Your task to perform on an android device: Open calendar and show me the fourth week of next month Image 0: 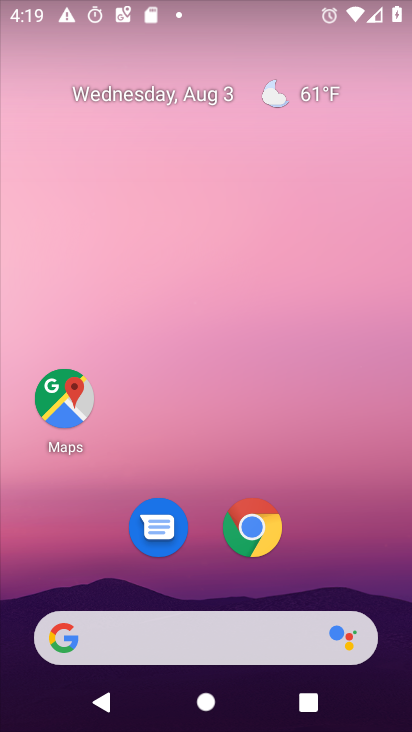
Step 0: click (326, 81)
Your task to perform on an android device: Open calendar and show me the fourth week of next month Image 1: 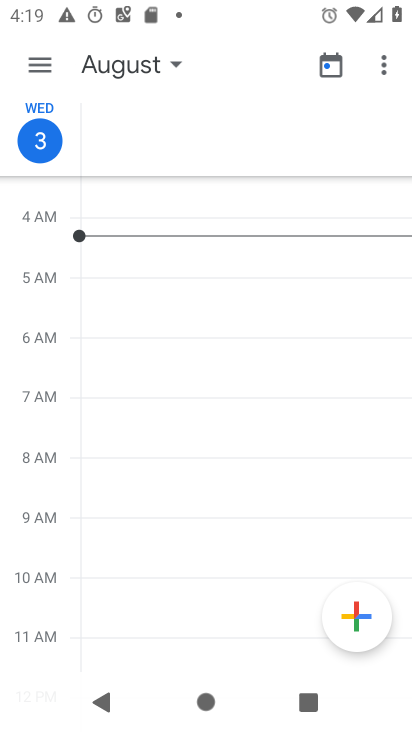
Step 1: press home button
Your task to perform on an android device: Open calendar and show me the fourth week of next month Image 2: 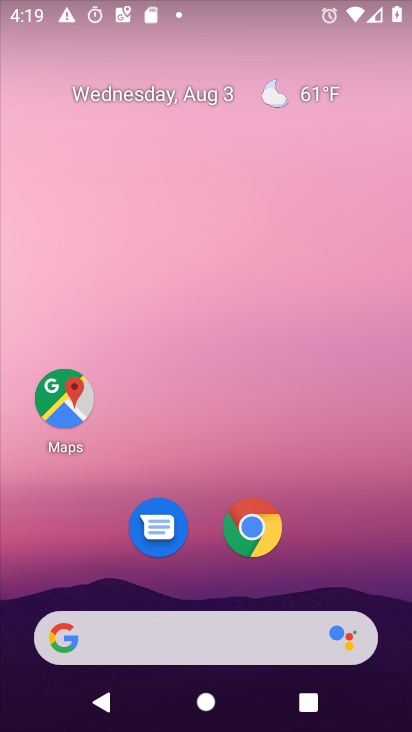
Step 2: drag from (362, 541) to (328, 140)
Your task to perform on an android device: Open calendar and show me the fourth week of next month Image 3: 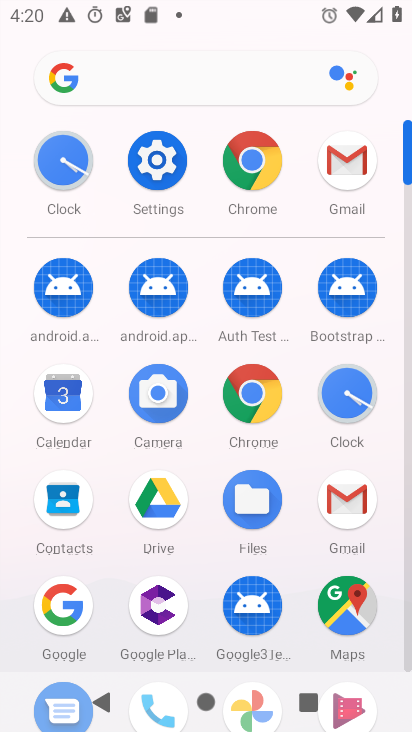
Step 3: click (65, 402)
Your task to perform on an android device: Open calendar and show me the fourth week of next month Image 4: 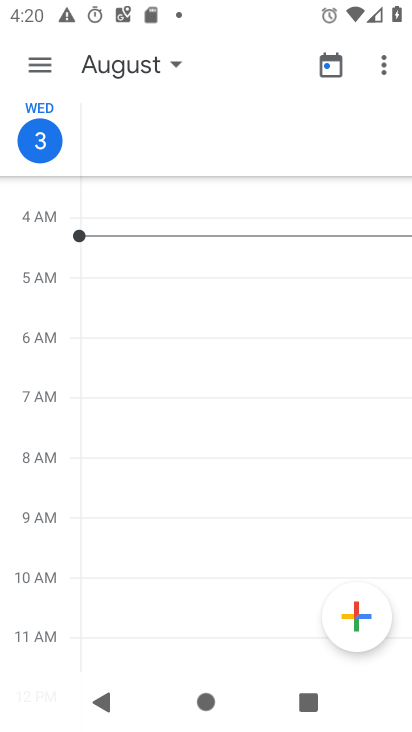
Step 4: click (149, 55)
Your task to perform on an android device: Open calendar and show me the fourth week of next month Image 5: 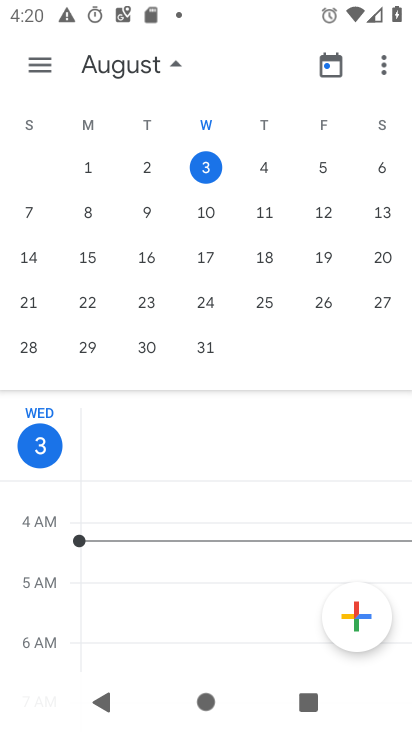
Step 5: drag from (370, 266) to (54, 270)
Your task to perform on an android device: Open calendar and show me the fourth week of next month Image 6: 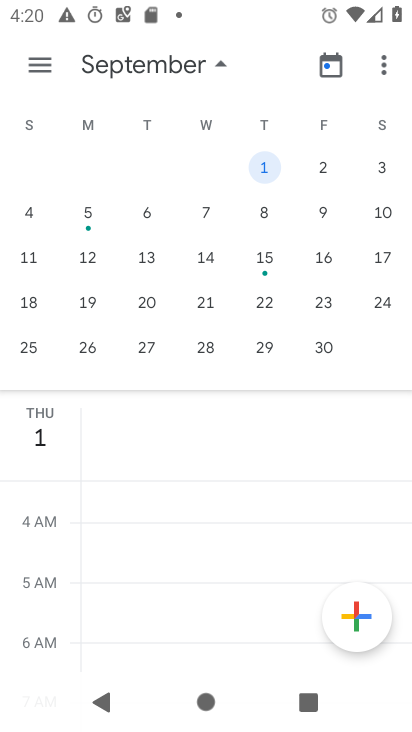
Step 6: click (141, 343)
Your task to perform on an android device: Open calendar and show me the fourth week of next month Image 7: 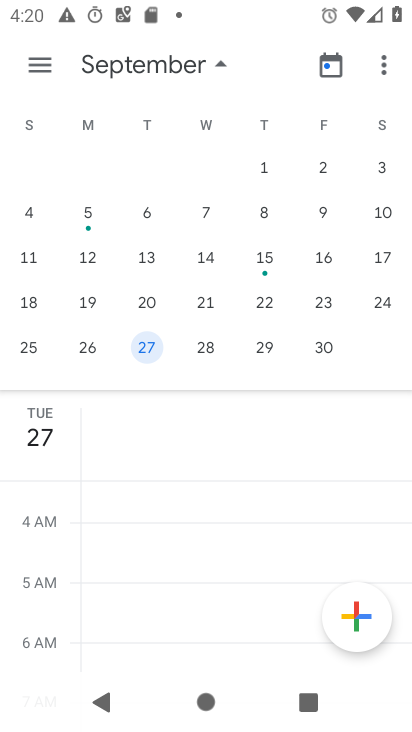
Step 7: click (37, 54)
Your task to perform on an android device: Open calendar and show me the fourth week of next month Image 8: 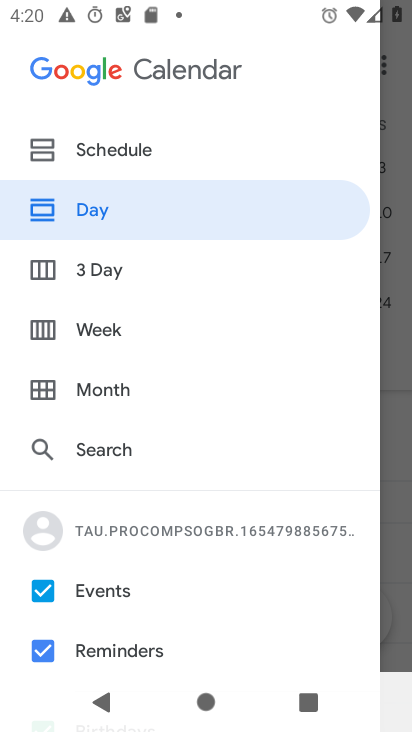
Step 8: click (111, 329)
Your task to perform on an android device: Open calendar and show me the fourth week of next month Image 9: 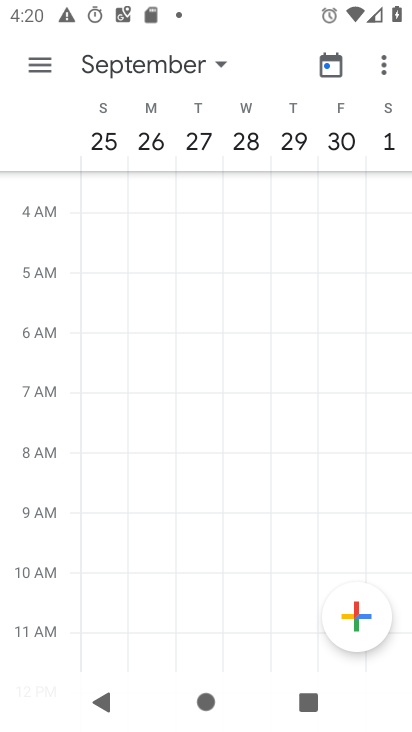
Step 9: task complete